Your task to perform on an android device: Open the stopwatch Image 0: 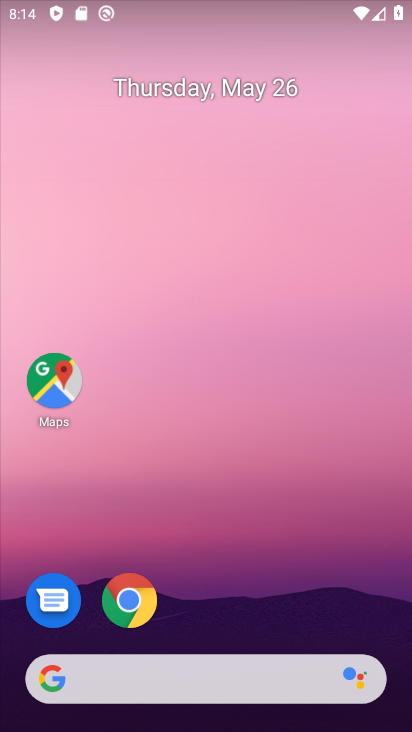
Step 0: drag from (229, 602) to (247, 153)
Your task to perform on an android device: Open the stopwatch Image 1: 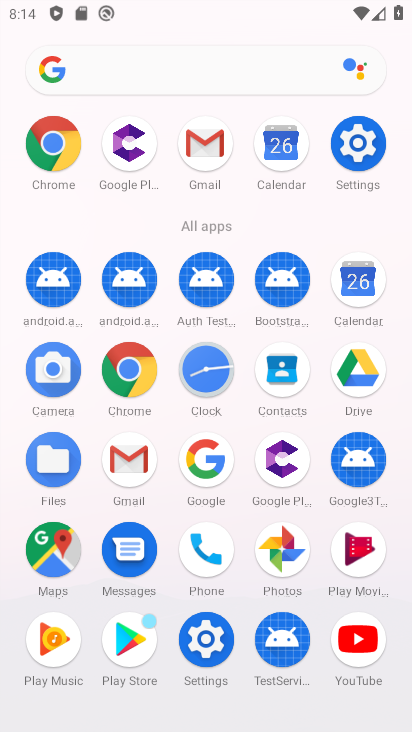
Step 1: click (215, 372)
Your task to perform on an android device: Open the stopwatch Image 2: 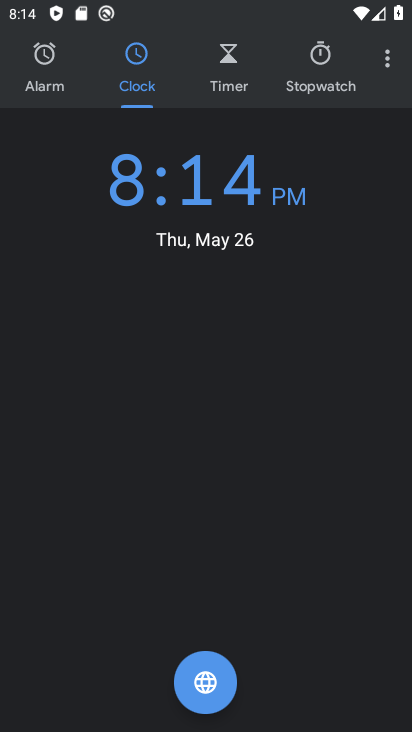
Step 2: click (319, 66)
Your task to perform on an android device: Open the stopwatch Image 3: 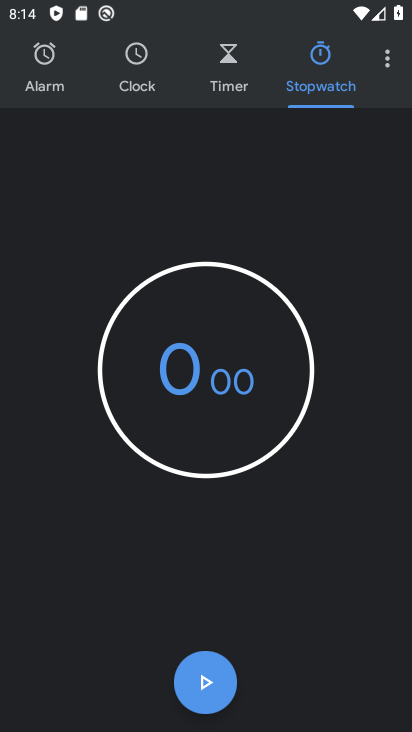
Step 3: click (222, 671)
Your task to perform on an android device: Open the stopwatch Image 4: 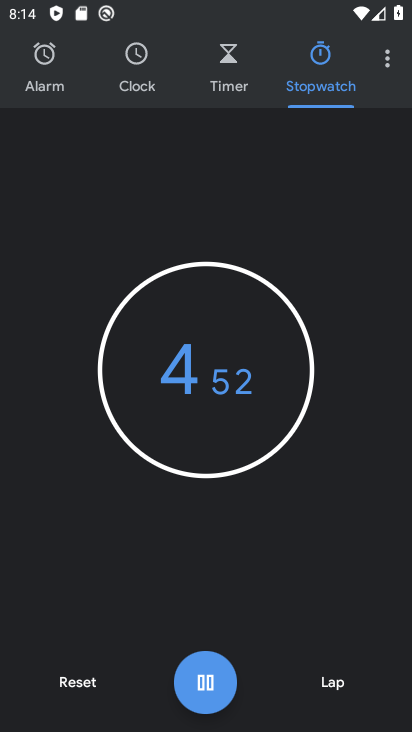
Step 4: task complete